Your task to perform on an android device: Go to calendar. Show me events next week Image 0: 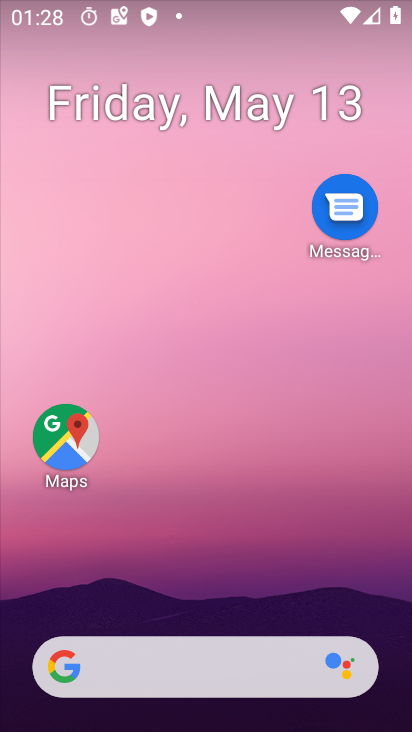
Step 0: drag from (320, 550) to (294, 181)
Your task to perform on an android device: Go to calendar. Show me events next week Image 1: 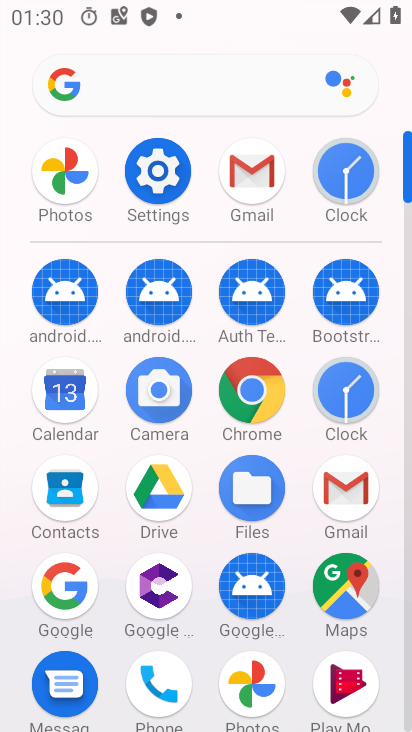
Step 1: click (67, 408)
Your task to perform on an android device: Go to calendar. Show me events next week Image 2: 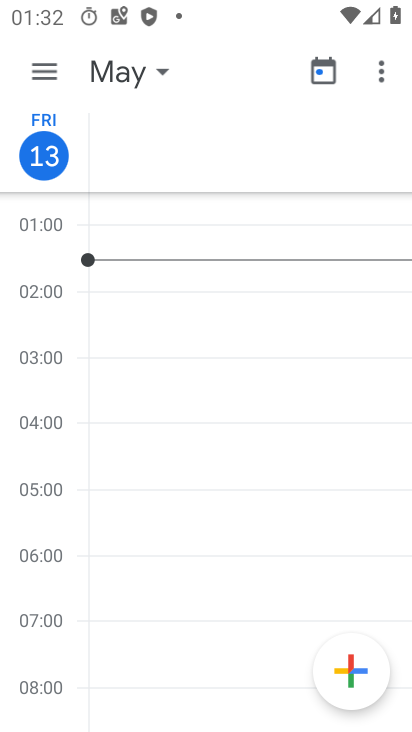
Step 2: click (153, 66)
Your task to perform on an android device: Go to calendar. Show me events next week Image 3: 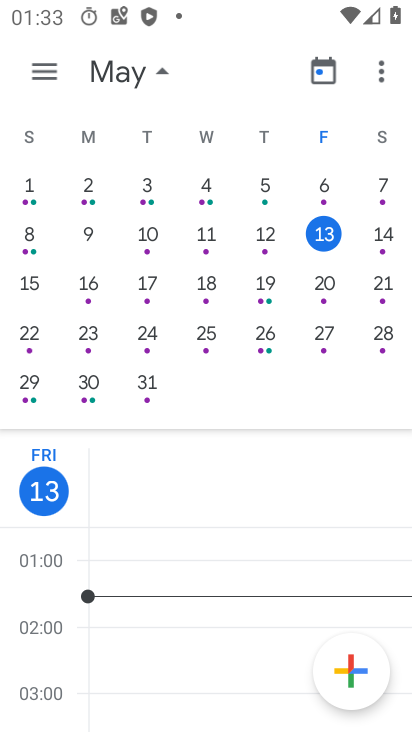
Step 3: click (136, 74)
Your task to perform on an android device: Go to calendar. Show me events next week Image 4: 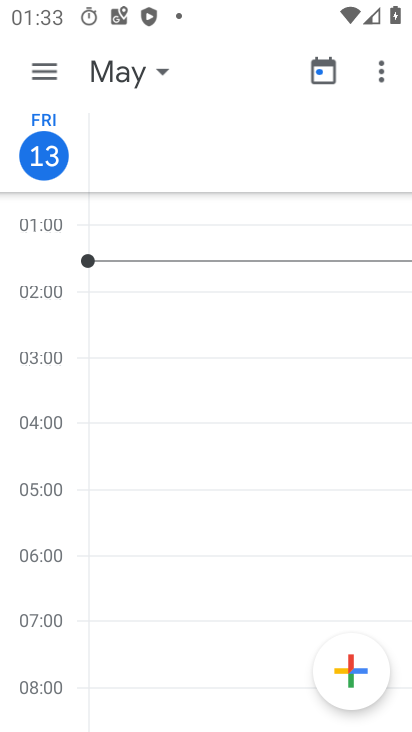
Step 4: task complete